Your task to perform on an android device: change notifications settings Image 0: 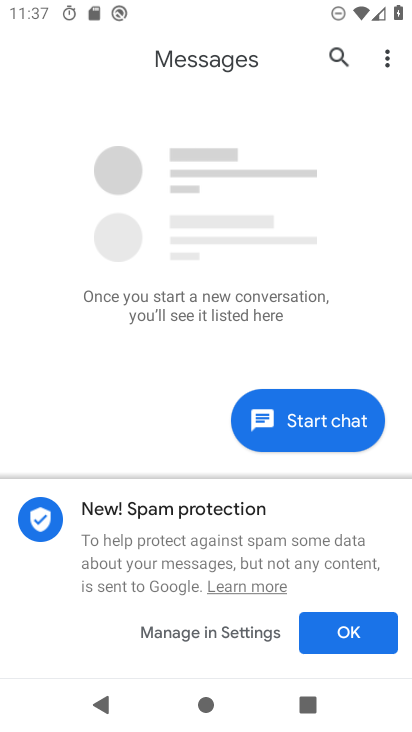
Step 0: press home button
Your task to perform on an android device: change notifications settings Image 1: 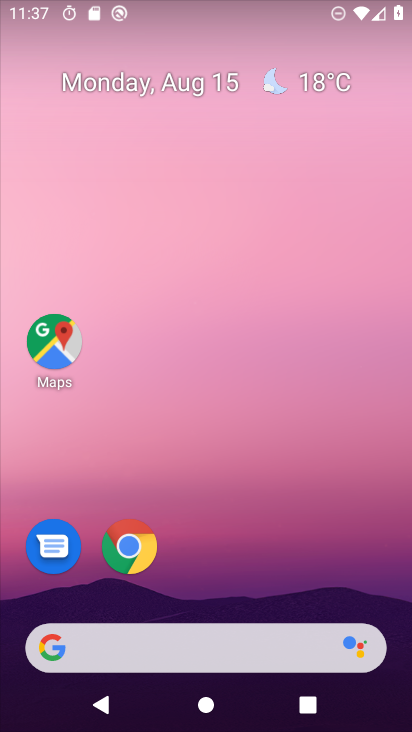
Step 1: drag from (268, 618) to (267, 309)
Your task to perform on an android device: change notifications settings Image 2: 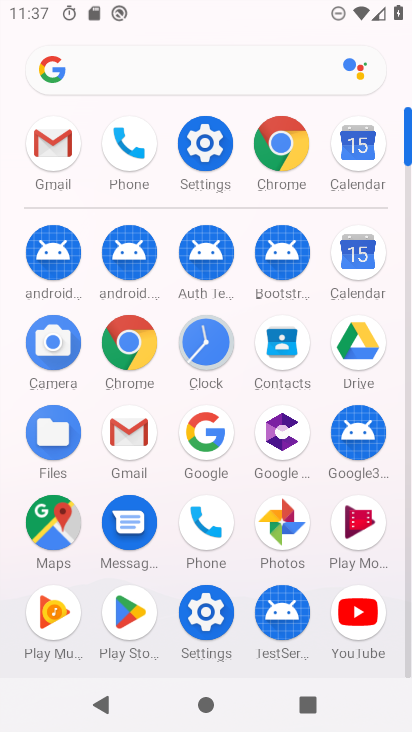
Step 2: click (204, 138)
Your task to perform on an android device: change notifications settings Image 3: 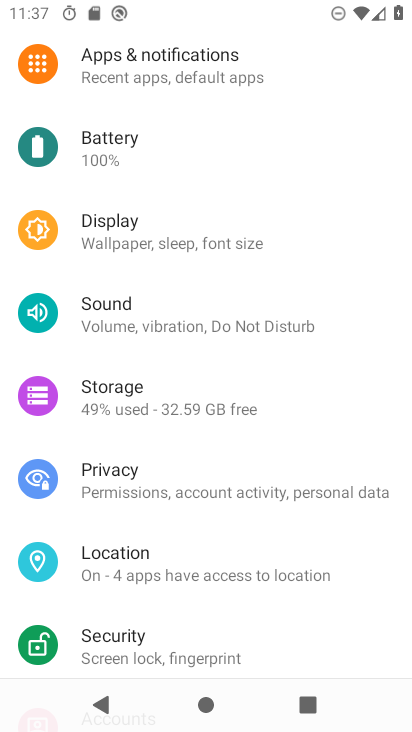
Step 3: click (157, 59)
Your task to perform on an android device: change notifications settings Image 4: 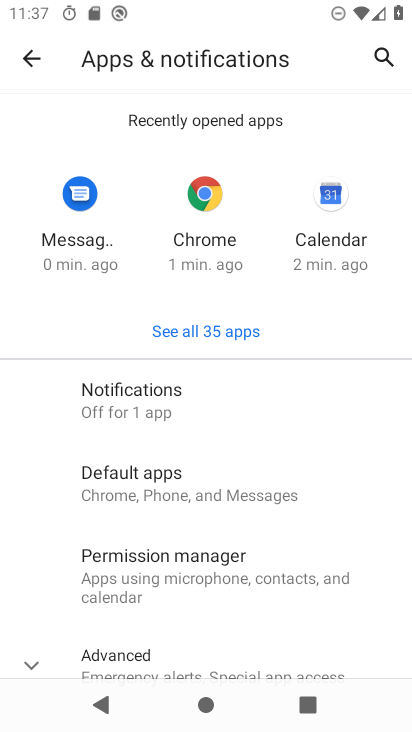
Step 4: click (121, 410)
Your task to perform on an android device: change notifications settings Image 5: 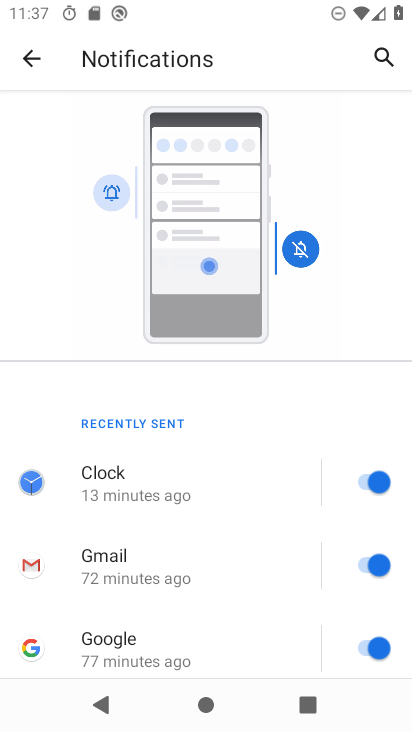
Step 5: drag from (108, 641) to (115, 382)
Your task to perform on an android device: change notifications settings Image 6: 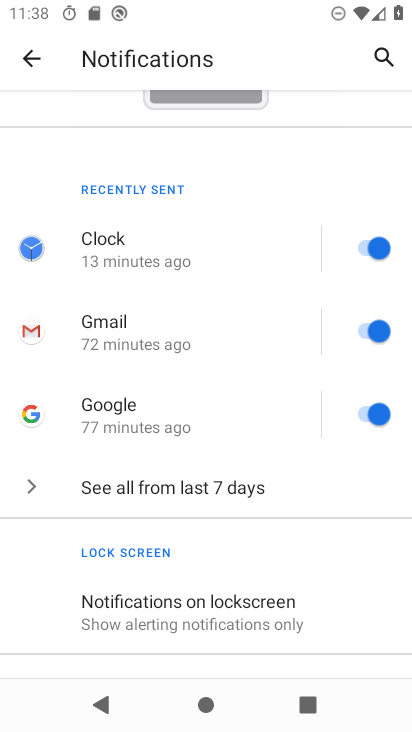
Step 6: drag from (158, 640) to (169, 394)
Your task to perform on an android device: change notifications settings Image 7: 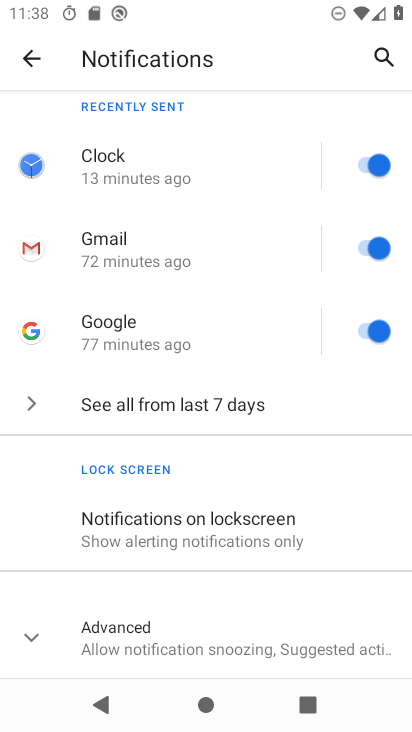
Step 7: click (136, 634)
Your task to perform on an android device: change notifications settings Image 8: 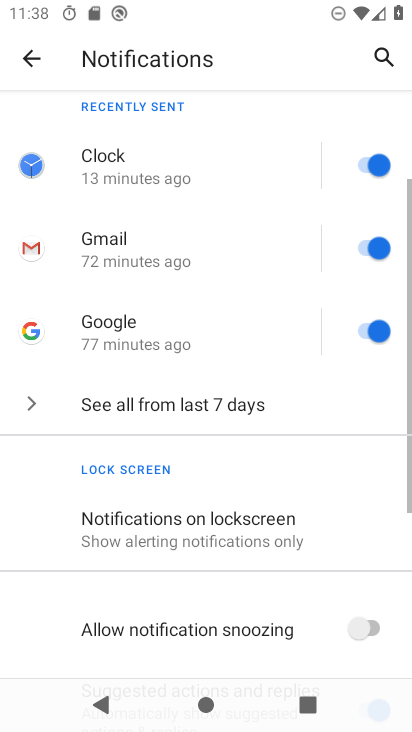
Step 8: click (343, 626)
Your task to perform on an android device: change notifications settings Image 9: 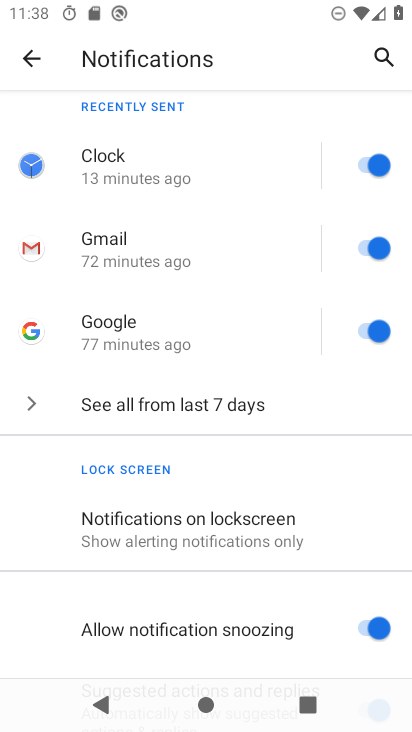
Step 9: task complete